Your task to perform on an android device: open app "Spotify" (install if not already installed) and go to login screen Image 0: 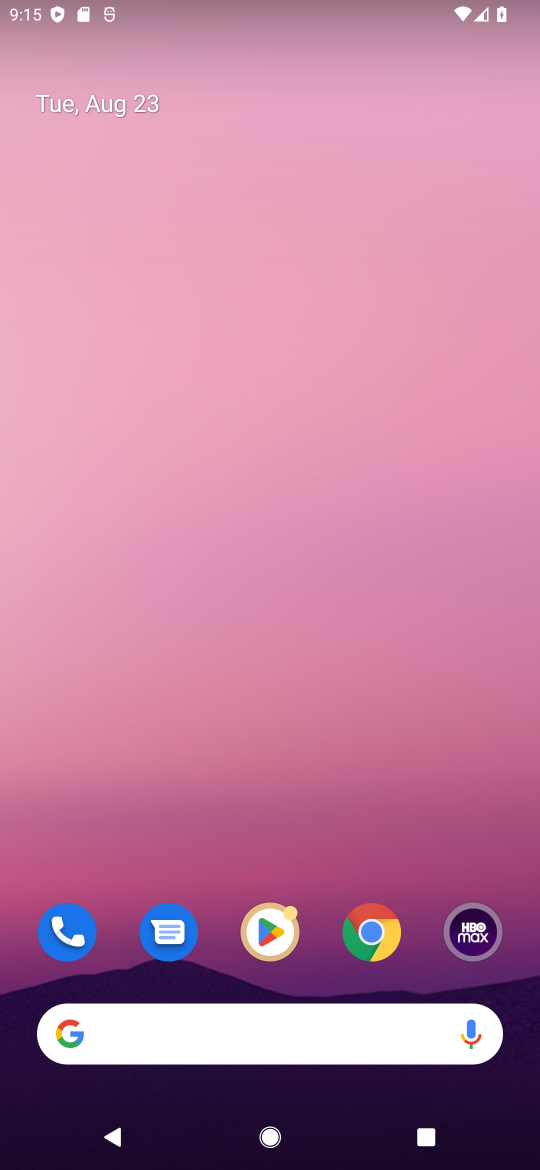
Step 0: click (276, 923)
Your task to perform on an android device: open app "Spotify" (install if not already installed) and go to login screen Image 1: 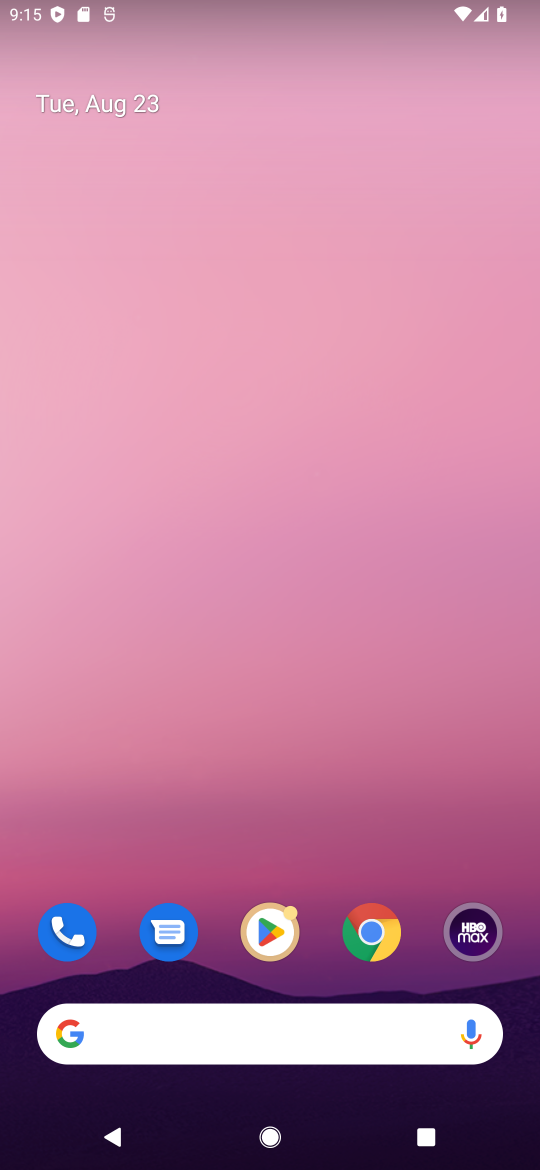
Step 1: click (270, 925)
Your task to perform on an android device: open app "Spotify" (install if not already installed) and go to login screen Image 2: 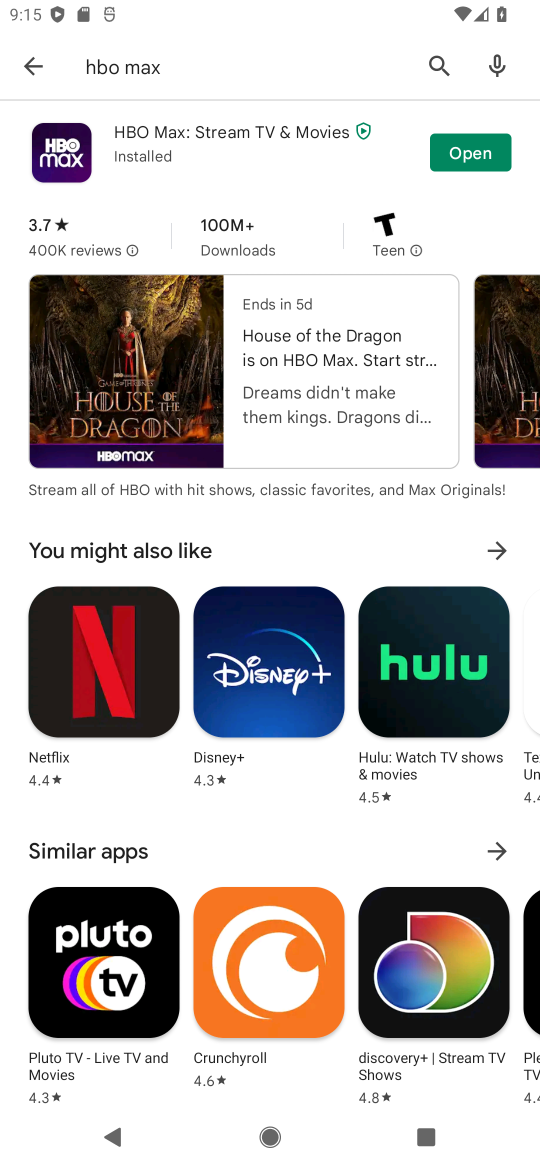
Step 2: click (430, 65)
Your task to perform on an android device: open app "Spotify" (install if not already installed) and go to login screen Image 3: 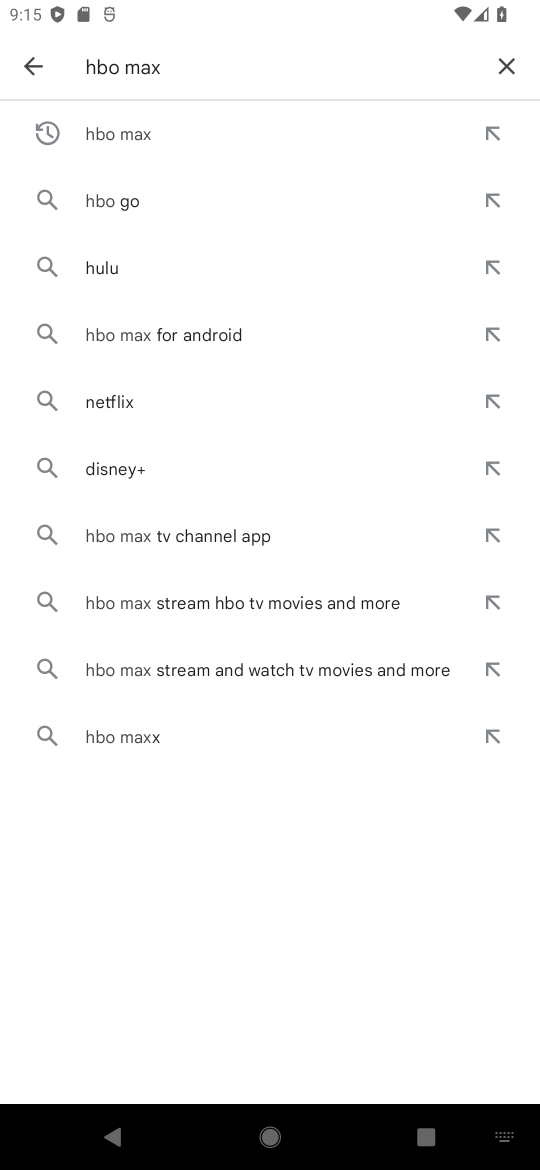
Step 3: click (489, 58)
Your task to perform on an android device: open app "Spotify" (install if not already installed) and go to login screen Image 4: 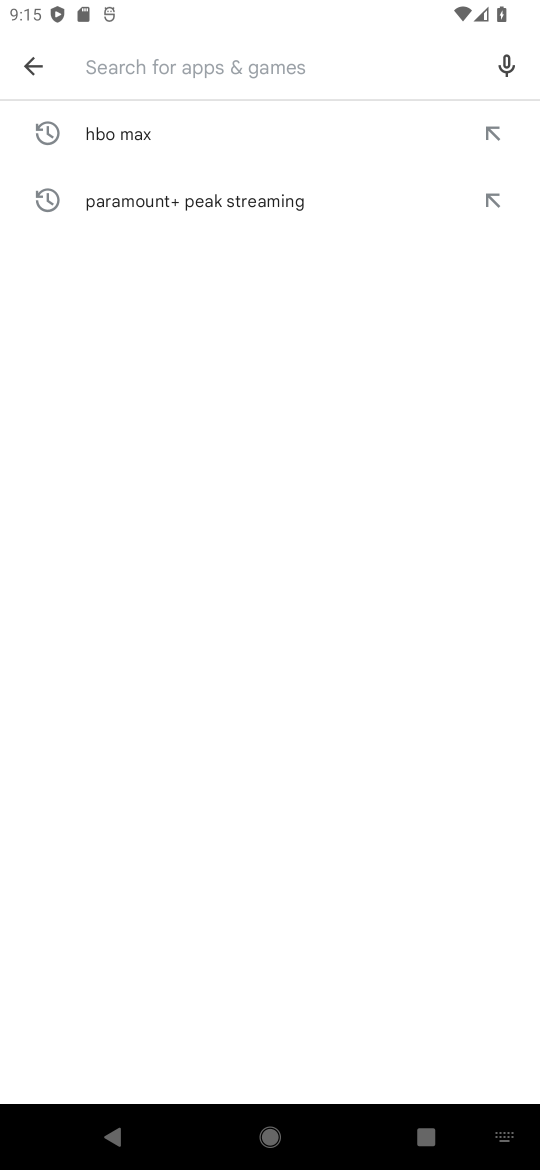
Step 4: type "spotify"
Your task to perform on an android device: open app "Spotify" (install if not already installed) and go to login screen Image 5: 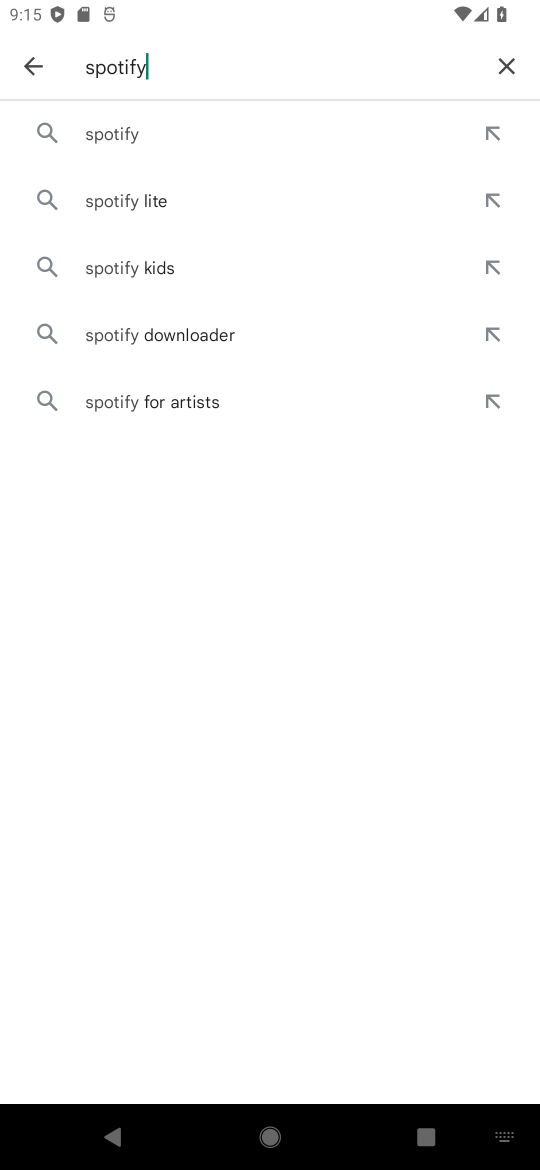
Step 5: click (114, 142)
Your task to perform on an android device: open app "Spotify" (install if not already installed) and go to login screen Image 6: 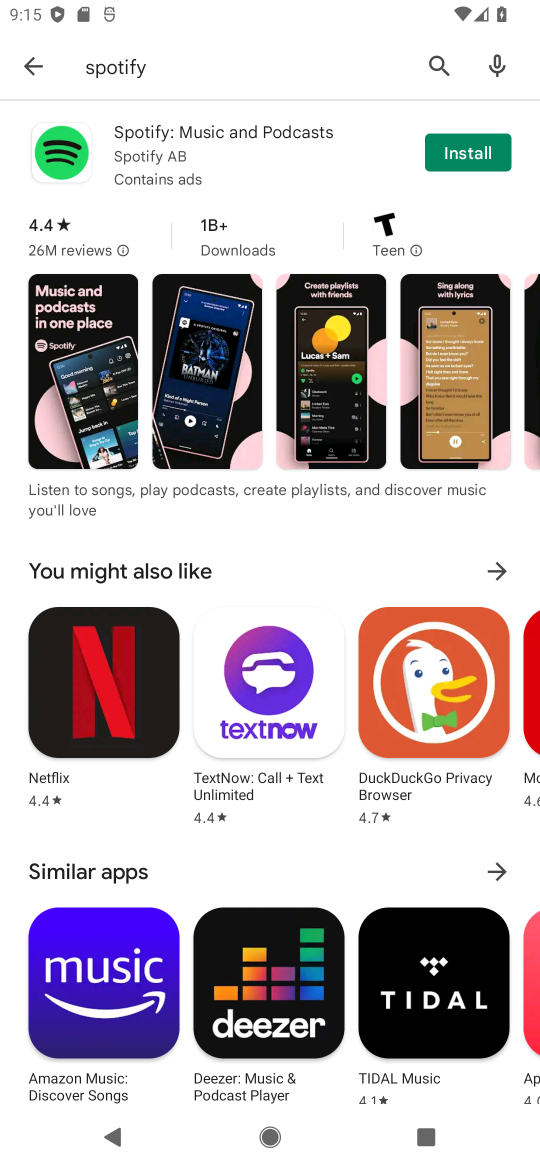
Step 6: click (482, 152)
Your task to perform on an android device: open app "Spotify" (install if not already installed) and go to login screen Image 7: 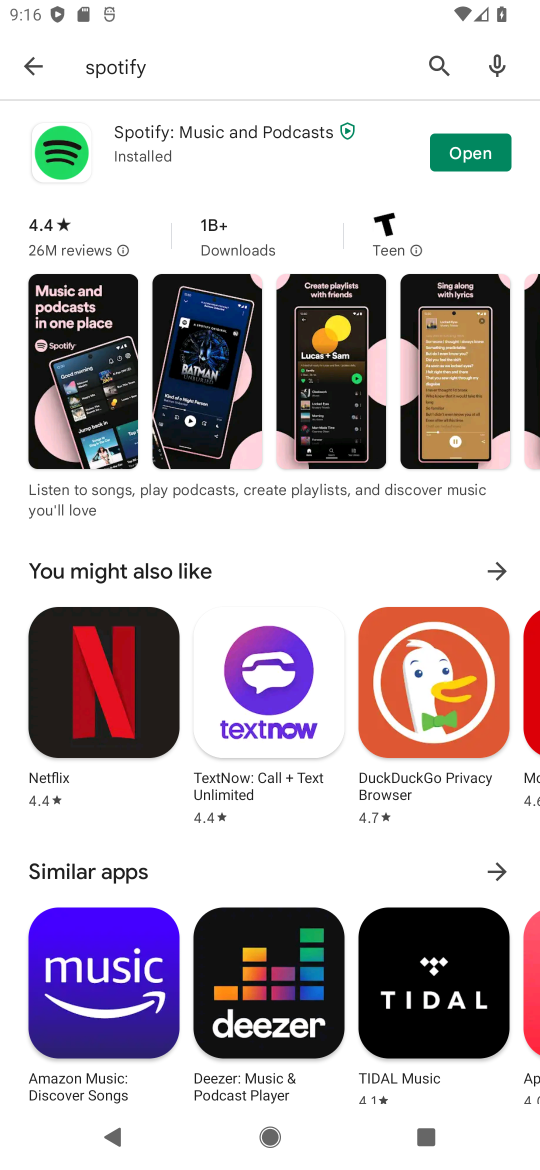
Step 7: click (482, 153)
Your task to perform on an android device: open app "Spotify" (install if not already installed) and go to login screen Image 8: 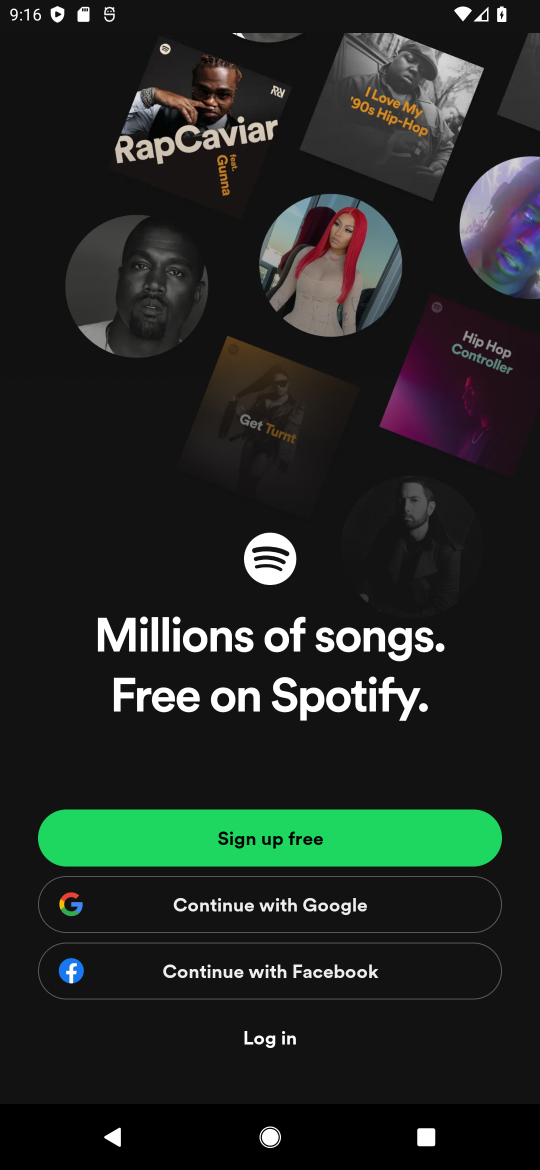
Step 8: click (278, 1037)
Your task to perform on an android device: open app "Spotify" (install if not already installed) and go to login screen Image 9: 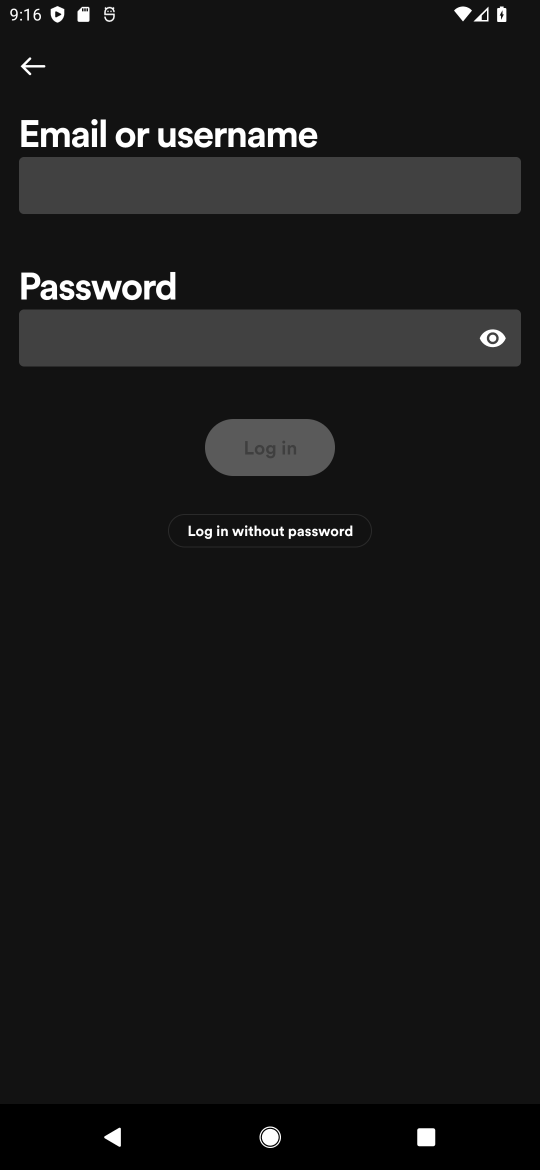
Step 9: task complete